Your task to perform on an android device: see sites visited before in the chrome app Image 0: 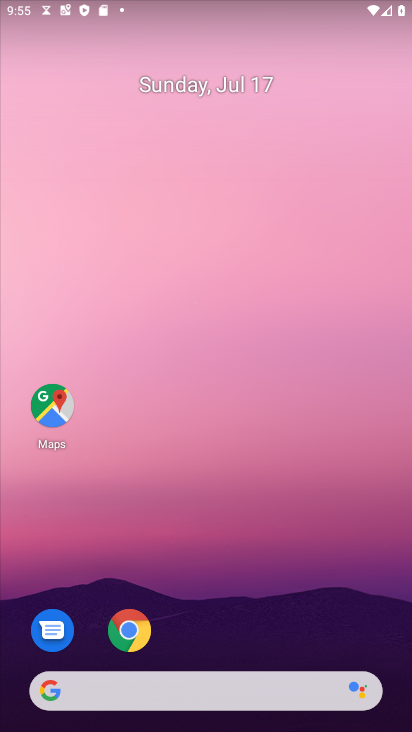
Step 0: drag from (260, 691) to (266, 38)
Your task to perform on an android device: see sites visited before in the chrome app Image 1: 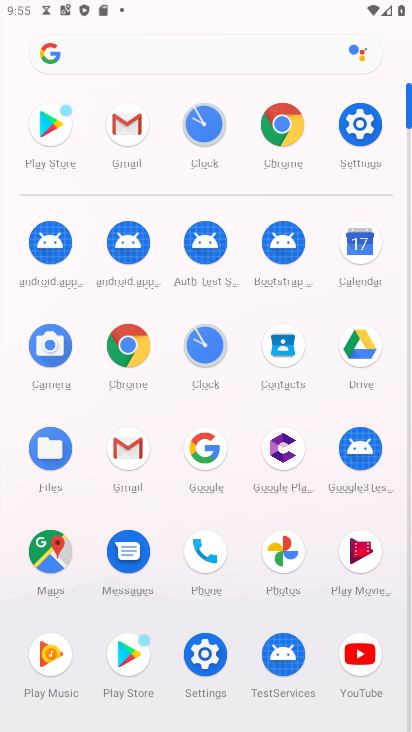
Step 1: click (130, 340)
Your task to perform on an android device: see sites visited before in the chrome app Image 2: 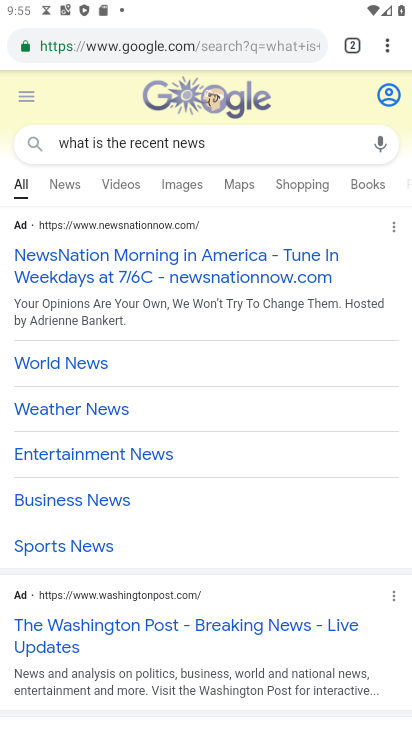
Step 2: click (382, 50)
Your task to perform on an android device: see sites visited before in the chrome app Image 3: 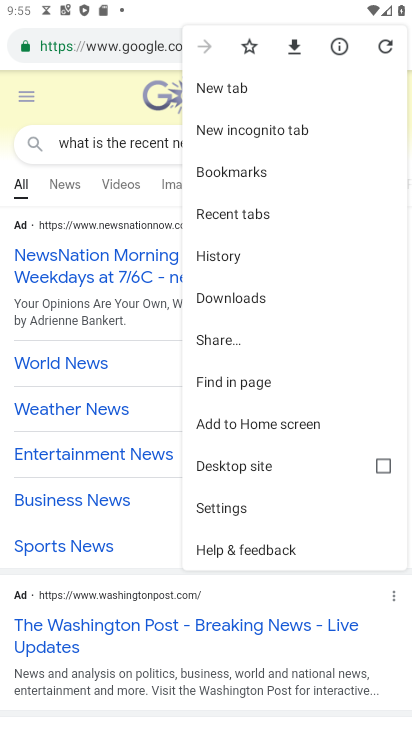
Step 3: click (243, 211)
Your task to perform on an android device: see sites visited before in the chrome app Image 4: 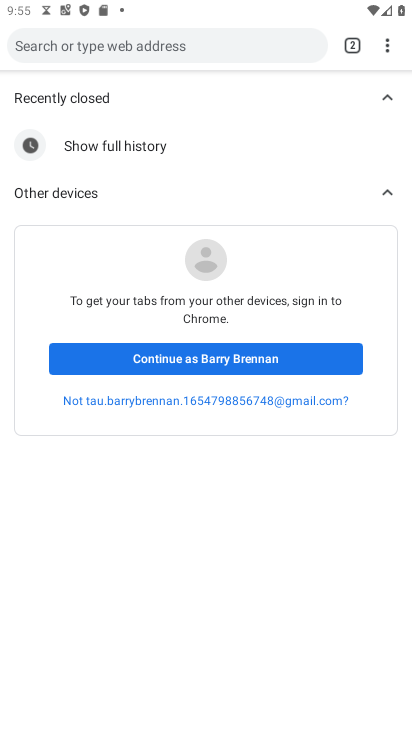
Step 4: task complete